Your task to perform on an android device: stop showing notifications on the lock screen Image 0: 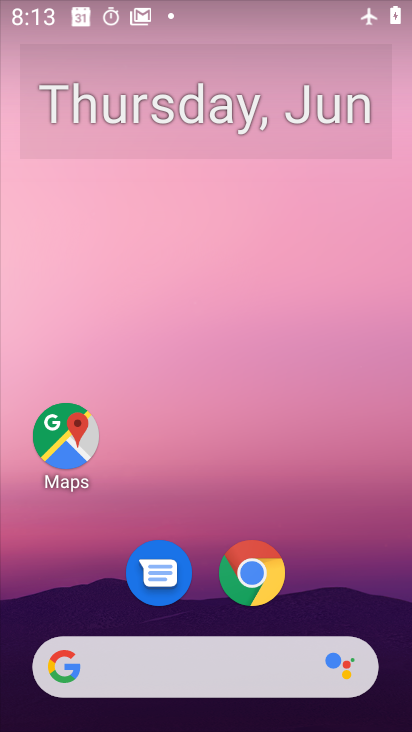
Step 0: drag from (324, 606) to (304, 192)
Your task to perform on an android device: stop showing notifications on the lock screen Image 1: 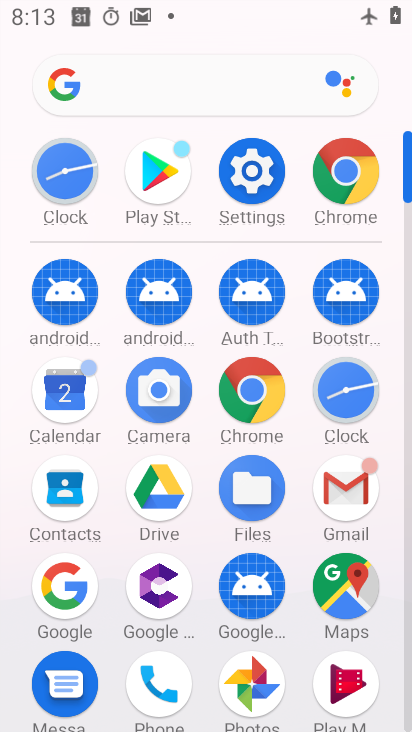
Step 1: click (255, 158)
Your task to perform on an android device: stop showing notifications on the lock screen Image 2: 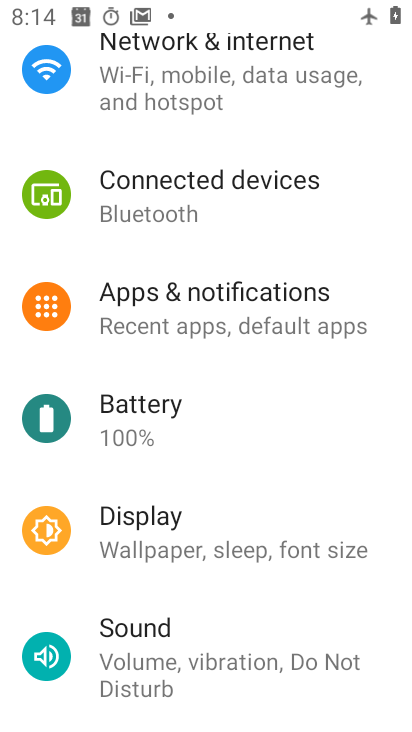
Step 2: click (192, 301)
Your task to perform on an android device: stop showing notifications on the lock screen Image 3: 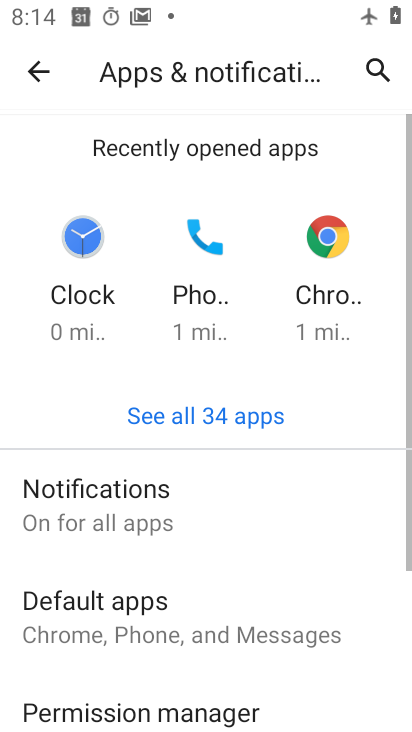
Step 3: click (134, 517)
Your task to perform on an android device: stop showing notifications on the lock screen Image 4: 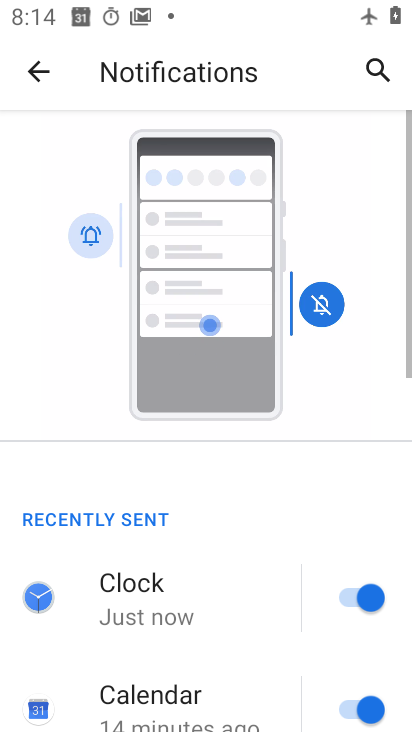
Step 4: drag from (152, 600) to (239, 182)
Your task to perform on an android device: stop showing notifications on the lock screen Image 5: 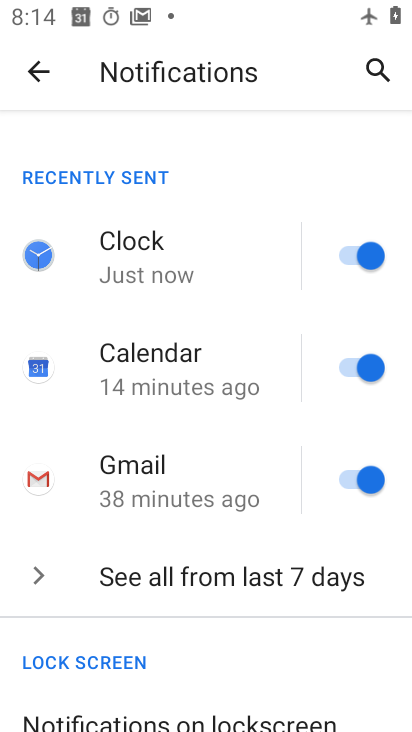
Step 5: drag from (135, 628) to (177, 309)
Your task to perform on an android device: stop showing notifications on the lock screen Image 6: 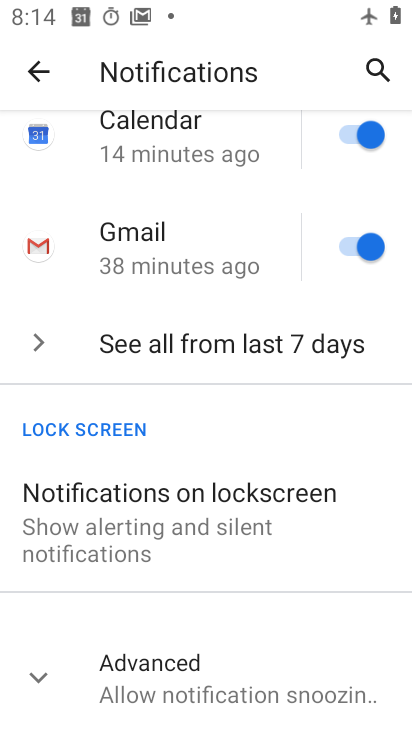
Step 6: click (155, 524)
Your task to perform on an android device: stop showing notifications on the lock screen Image 7: 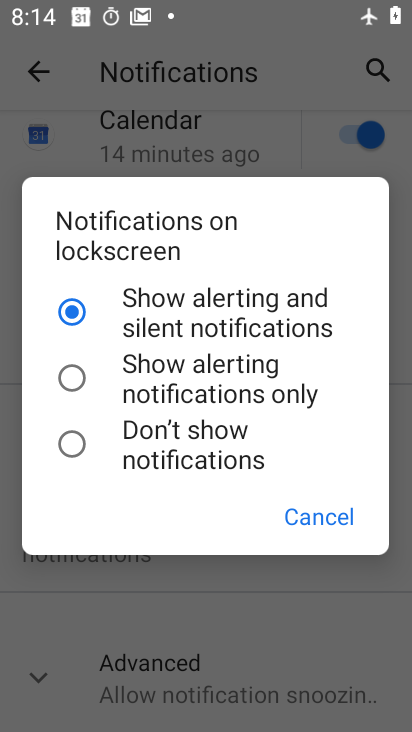
Step 7: click (86, 451)
Your task to perform on an android device: stop showing notifications on the lock screen Image 8: 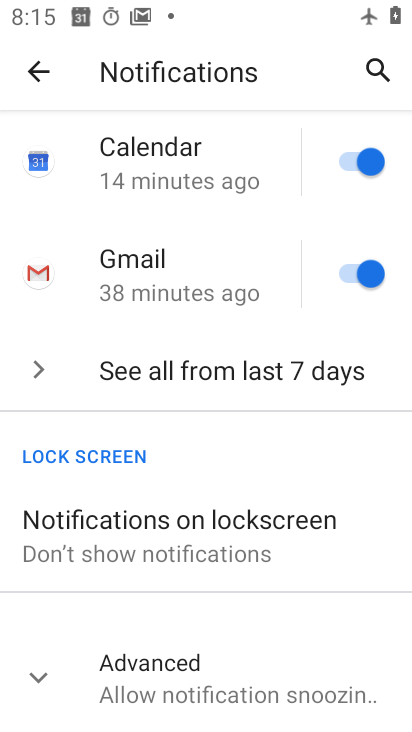
Step 8: task complete